Your task to perform on an android device: turn off airplane mode Image 0: 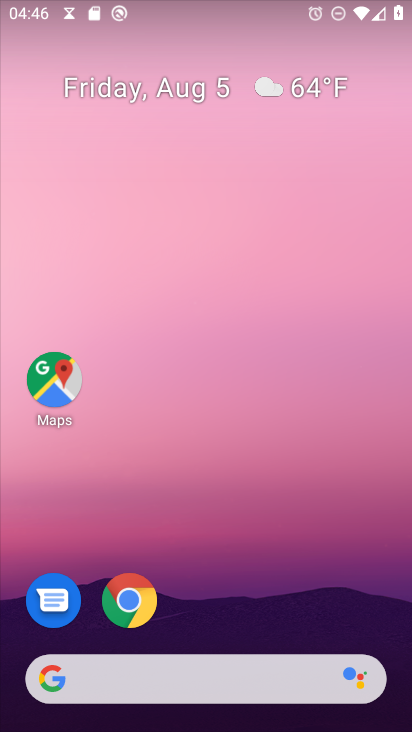
Step 0: drag from (183, 680) to (226, 172)
Your task to perform on an android device: turn off airplane mode Image 1: 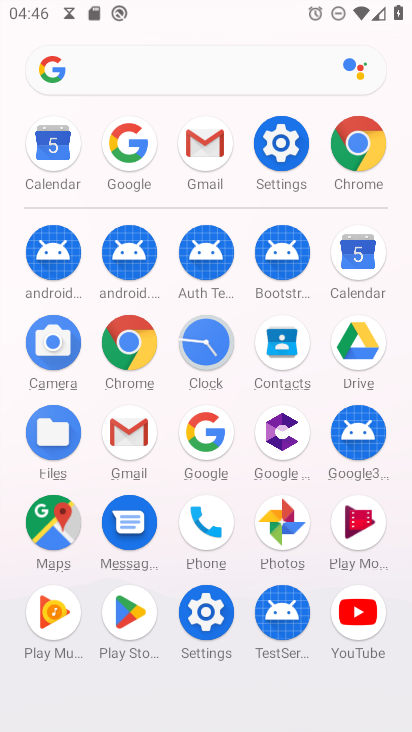
Step 1: click (286, 144)
Your task to perform on an android device: turn off airplane mode Image 2: 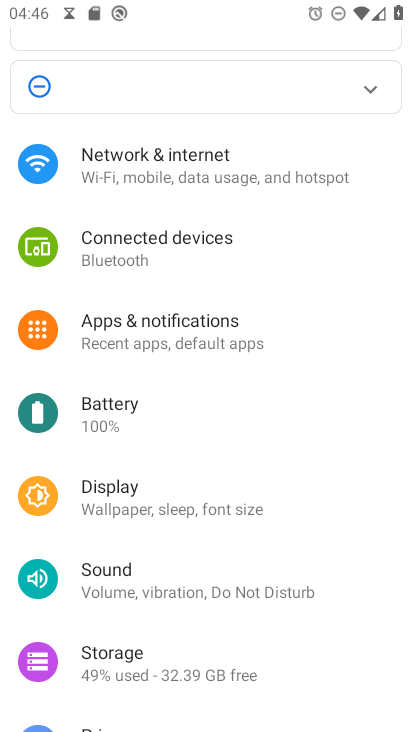
Step 2: click (218, 174)
Your task to perform on an android device: turn off airplane mode Image 3: 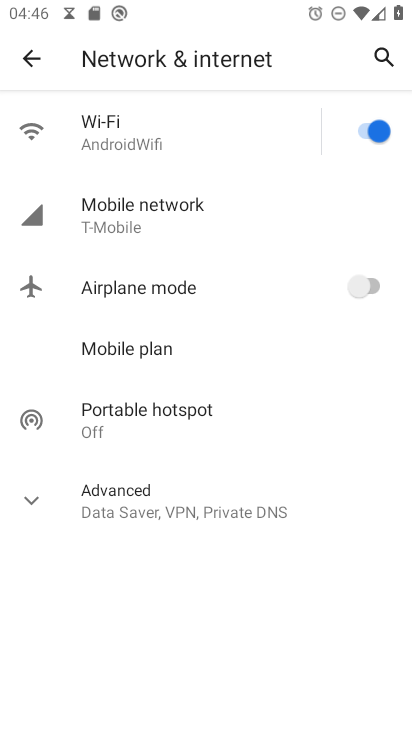
Step 3: task complete